Your task to perform on an android device: set the timer Image 0: 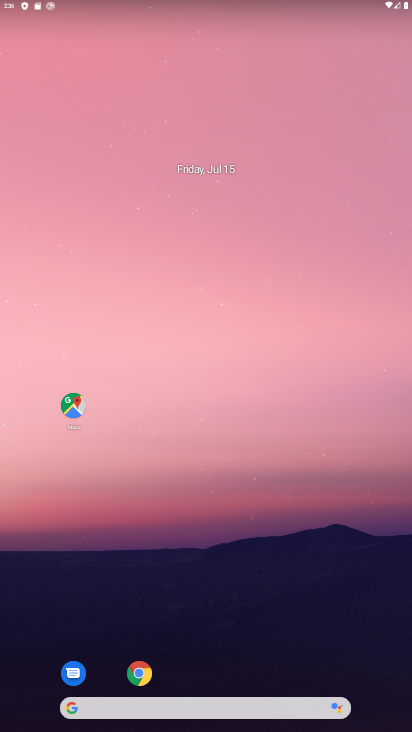
Step 0: drag from (363, 648) to (299, 67)
Your task to perform on an android device: set the timer Image 1: 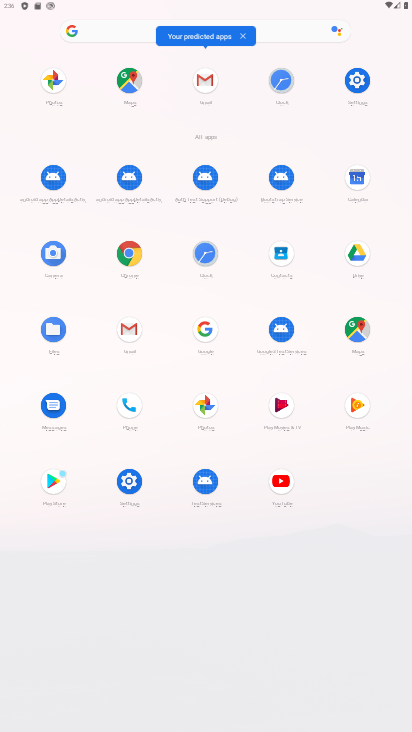
Step 1: click (205, 253)
Your task to perform on an android device: set the timer Image 2: 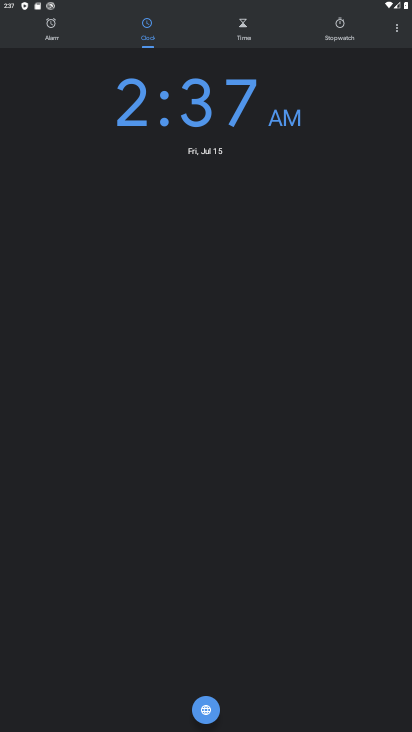
Step 2: click (237, 29)
Your task to perform on an android device: set the timer Image 3: 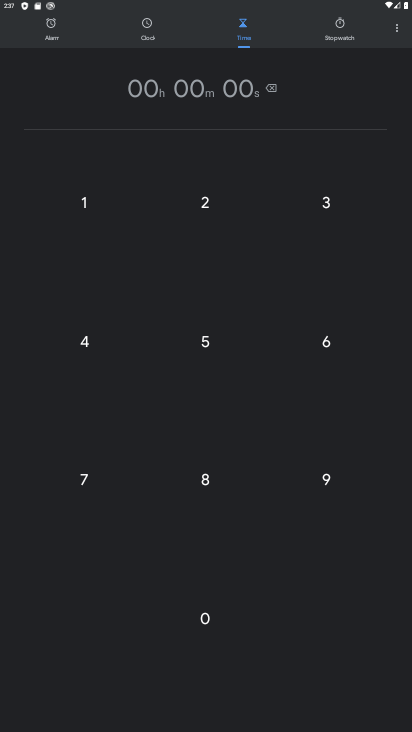
Step 3: click (80, 208)
Your task to perform on an android device: set the timer Image 4: 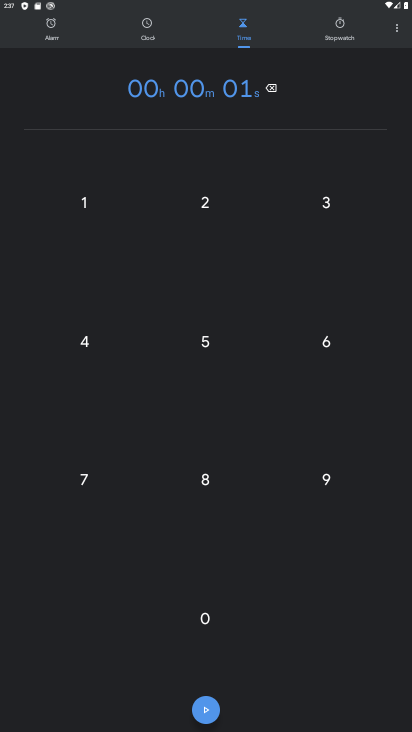
Step 4: click (325, 209)
Your task to perform on an android device: set the timer Image 5: 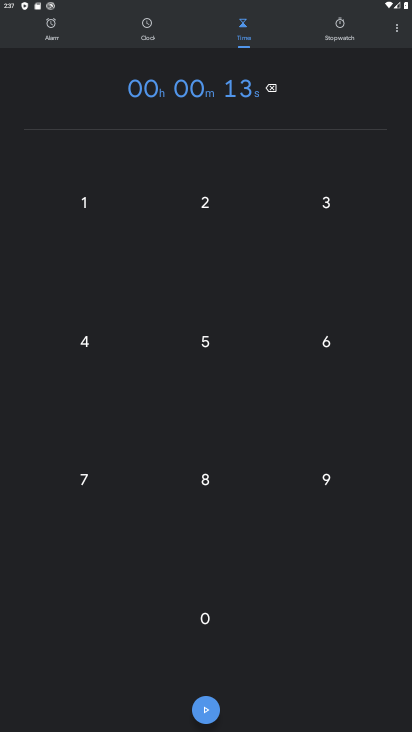
Step 5: click (202, 620)
Your task to perform on an android device: set the timer Image 6: 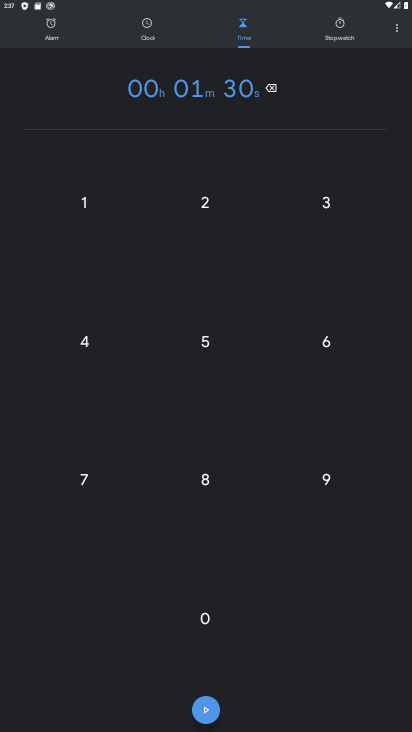
Step 6: click (202, 620)
Your task to perform on an android device: set the timer Image 7: 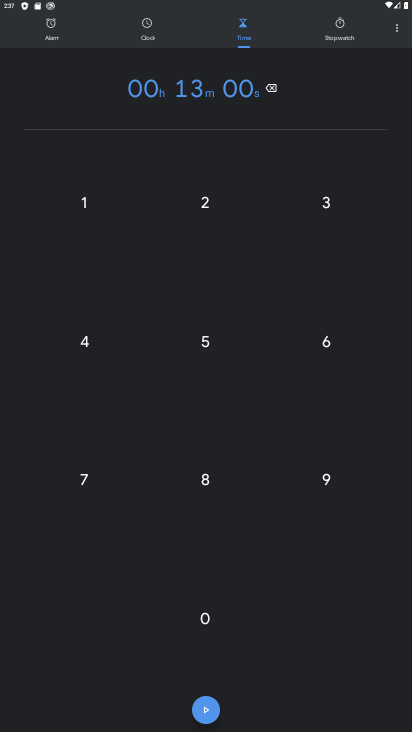
Step 7: click (202, 620)
Your task to perform on an android device: set the timer Image 8: 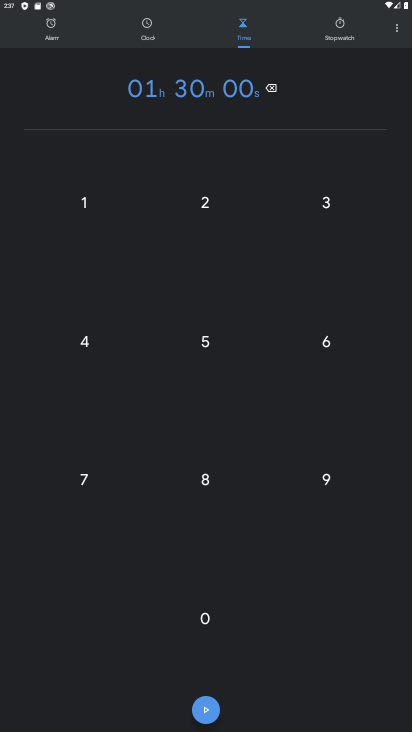
Step 8: task complete